Your task to perform on an android device: Open Youtube and go to the subscriptions tab Image 0: 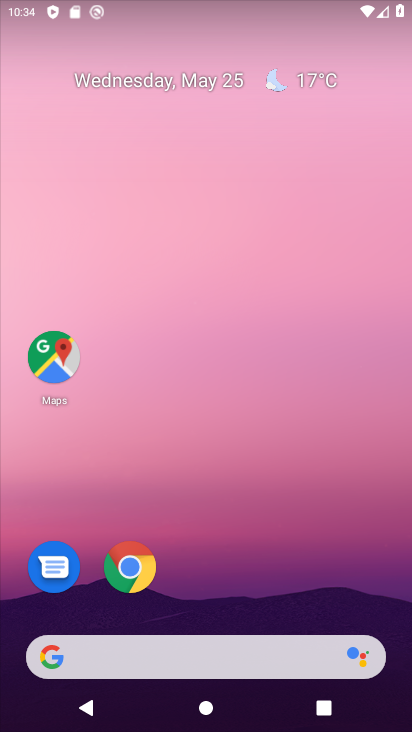
Step 0: drag from (348, 619) to (329, 60)
Your task to perform on an android device: Open Youtube and go to the subscriptions tab Image 1: 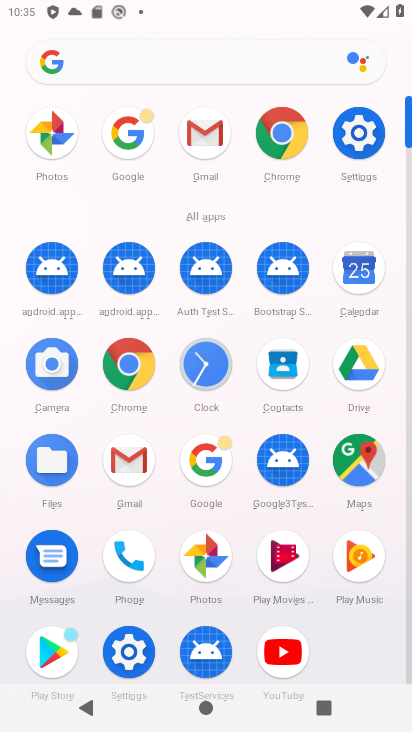
Step 1: click (272, 632)
Your task to perform on an android device: Open Youtube and go to the subscriptions tab Image 2: 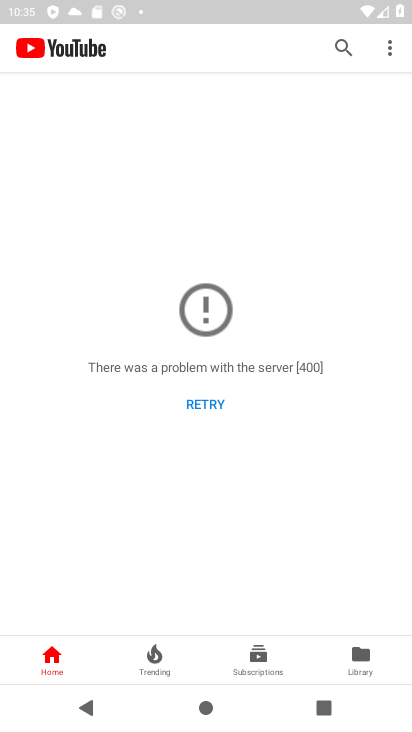
Step 2: click (200, 384)
Your task to perform on an android device: Open Youtube and go to the subscriptions tab Image 3: 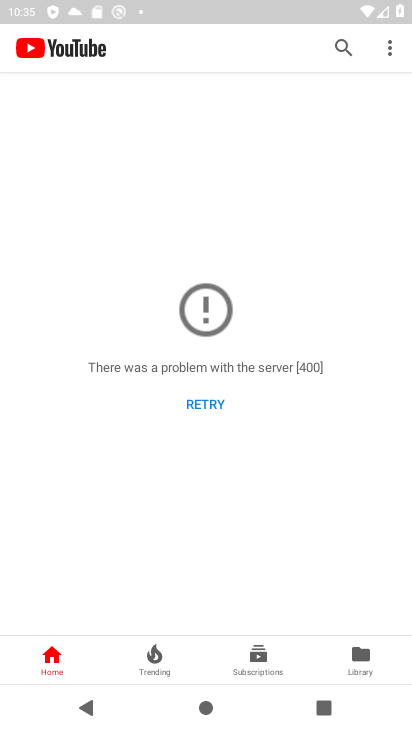
Step 3: click (251, 647)
Your task to perform on an android device: Open Youtube and go to the subscriptions tab Image 4: 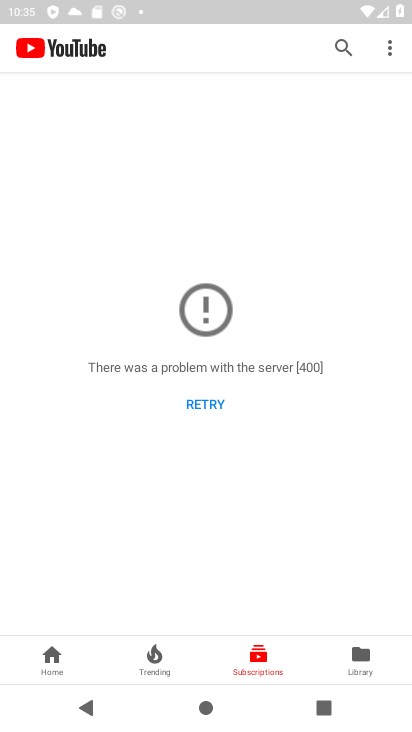
Step 4: click (200, 380)
Your task to perform on an android device: Open Youtube and go to the subscriptions tab Image 5: 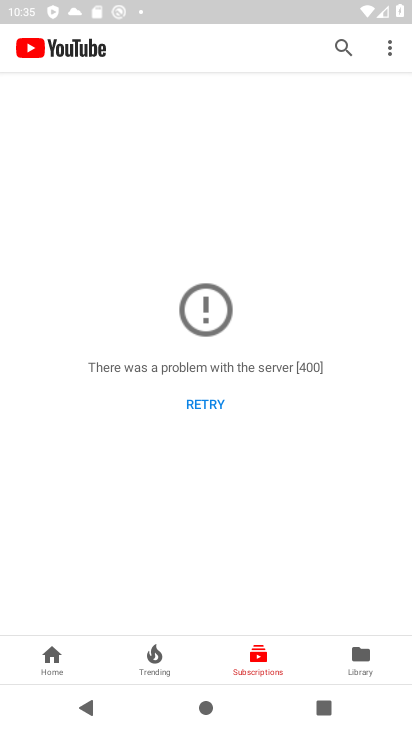
Step 5: click (206, 405)
Your task to perform on an android device: Open Youtube and go to the subscriptions tab Image 6: 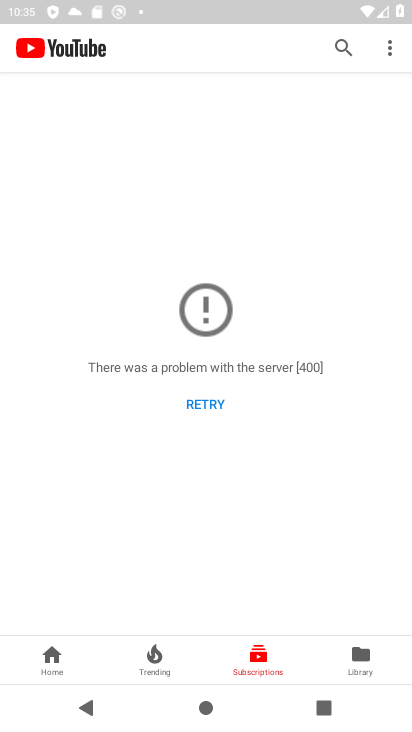
Step 6: click (206, 405)
Your task to perform on an android device: Open Youtube and go to the subscriptions tab Image 7: 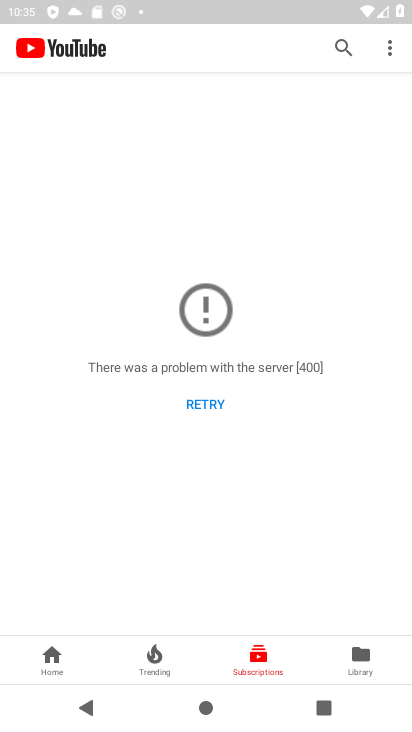
Step 7: task complete